Your task to perform on an android device: Do I have any events this weekend? Image 0: 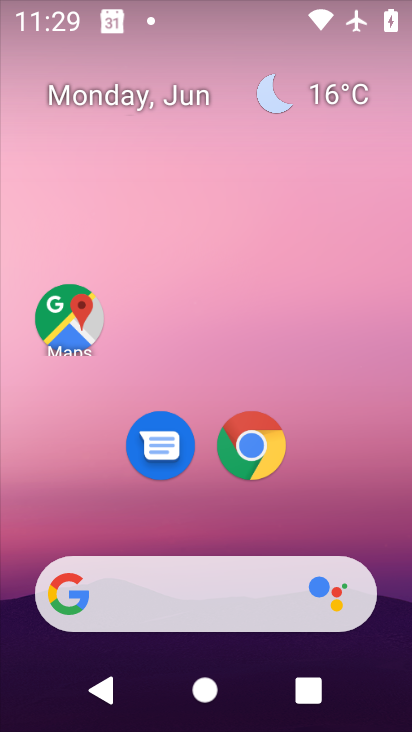
Step 0: press home button
Your task to perform on an android device: Do I have any events this weekend? Image 1: 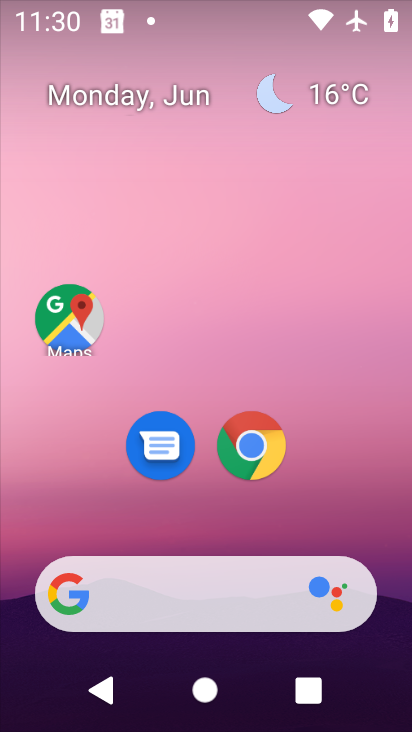
Step 1: press home button
Your task to perform on an android device: Do I have any events this weekend? Image 2: 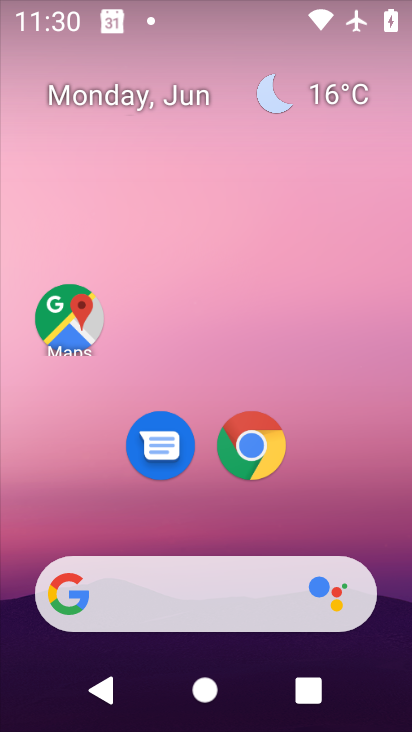
Step 2: drag from (219, 527) to (217, 92)
Your task to perform on an android device: Do I have any events this weekend? Image 3: 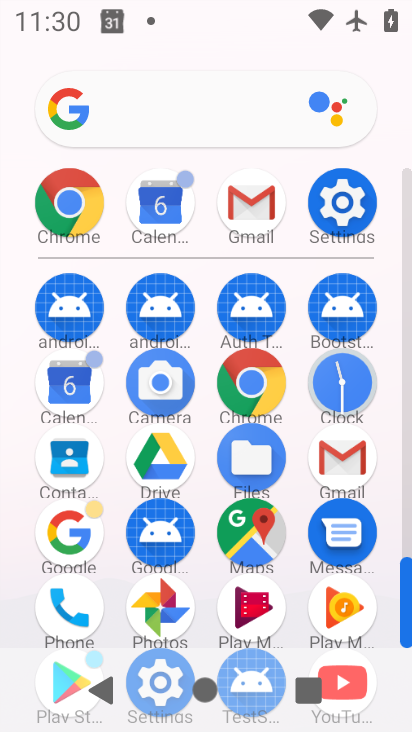
Step 3: click (143, 198)
Your task to perform on an android device: Do I have any events this weekend? Image 4: 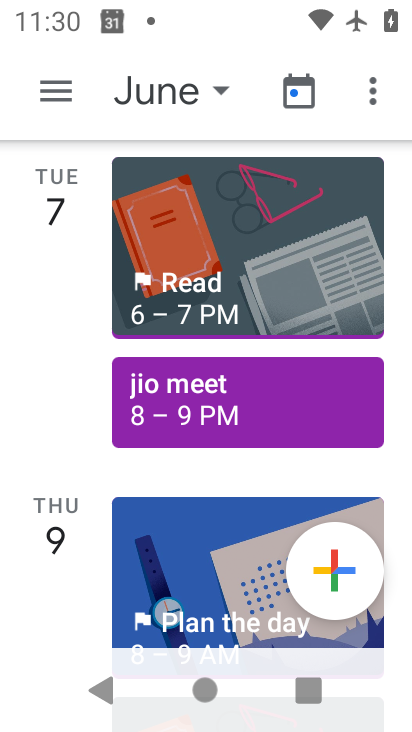
Step 4: task complete